Your task to perform on an android device: Search for seafood restaurants on Google Maps Image 0: 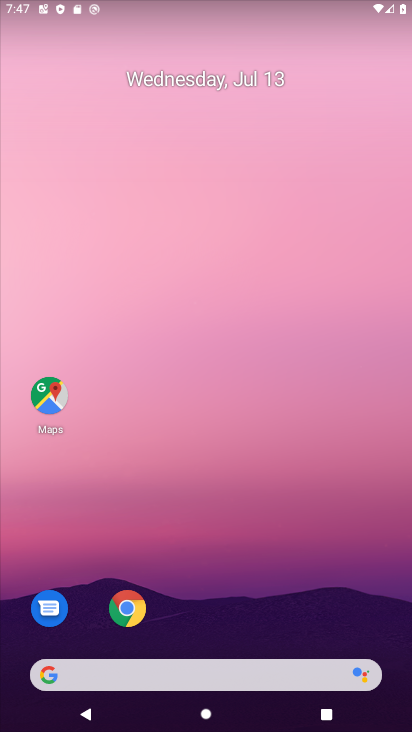
Step 0: click (62, 411)
Your task to perform on an android device: Search for seafood restaurants on Google Maps Image 1: 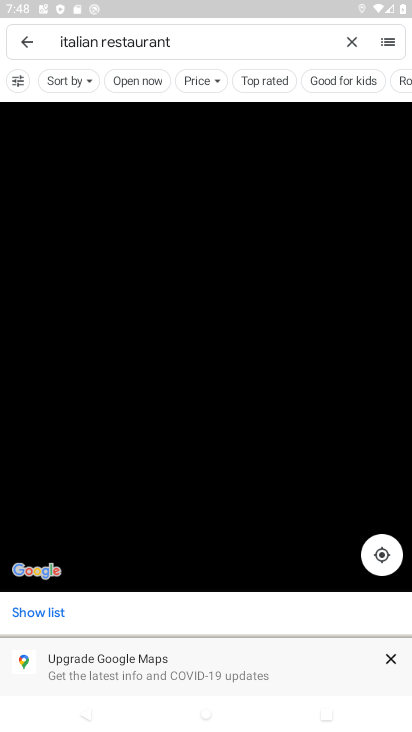
Step 1: click (346, 46)
Your task to perform on an android device: Search for seafood restaurants on Google Maps Image 2: 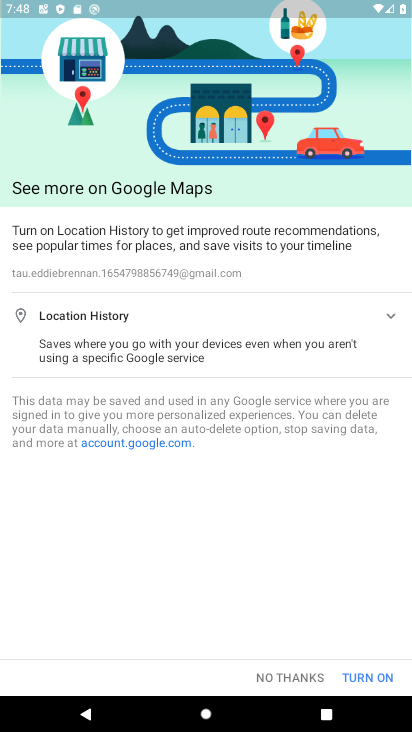
Step 2: click (362, 675)
Your task to perform on an android device: Search for seafood restaurants on Google Maps Image 3: 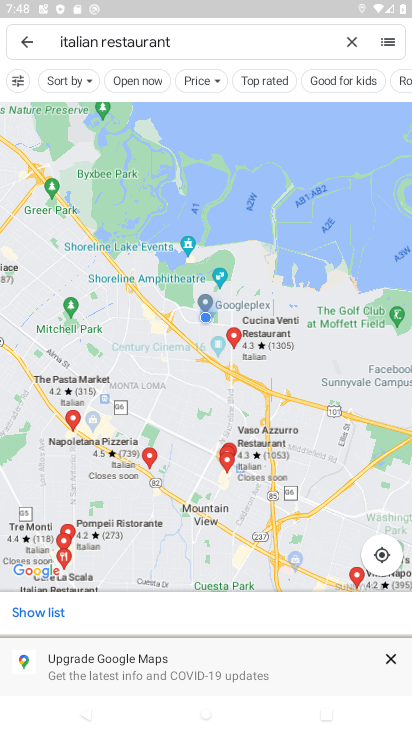
Step 3: click (369, 682)
Your task to perform on an android device: Search for seafood restaurants on Google Maps Image 4: 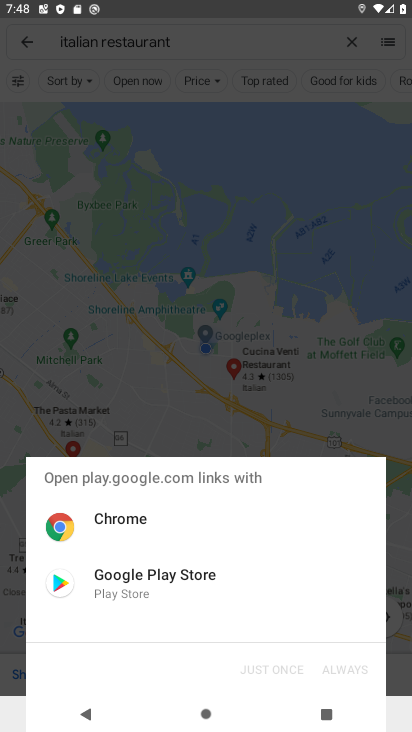
Step 4: click (144, 314)
Your task to perform on an android device: Search for seafood restaurants on Google Maps Image 5: 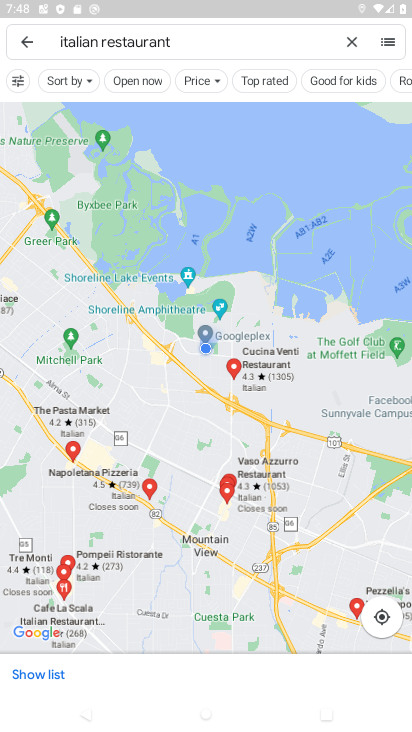
Step 5: click (351, 37)
Your task to perform on an android device: Search for seafood restaurants on Google Maps Image 6: 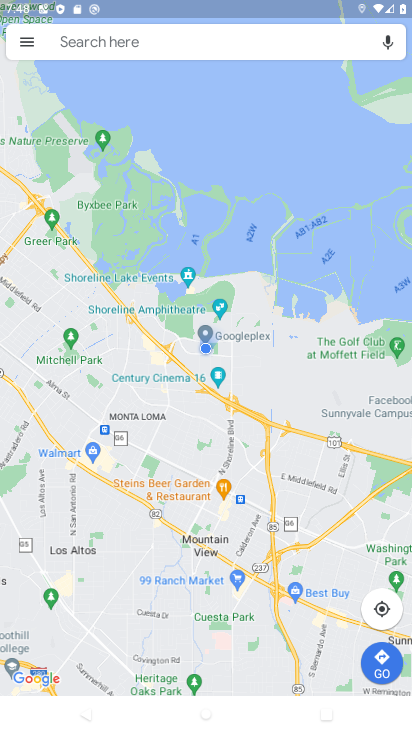
Step 6: click (253, 49)
Your task to perform on an android device: Search for seafood restaurants on Google Maps Image 7: 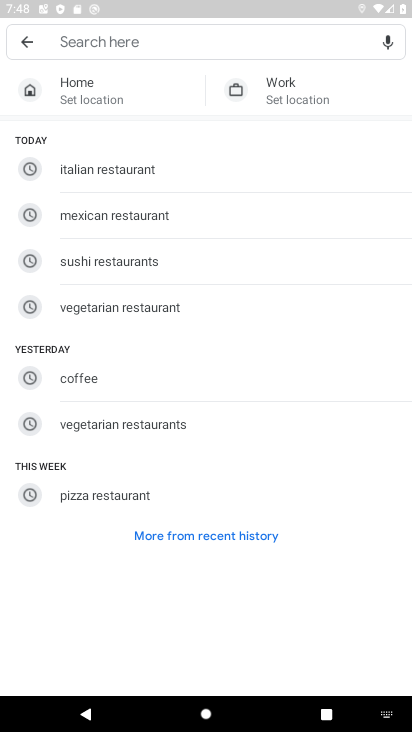
Step 7: type "seafood restaurants"
Your task to perform on an android device: Search for seafood restaurants on Google Maps Image 8: 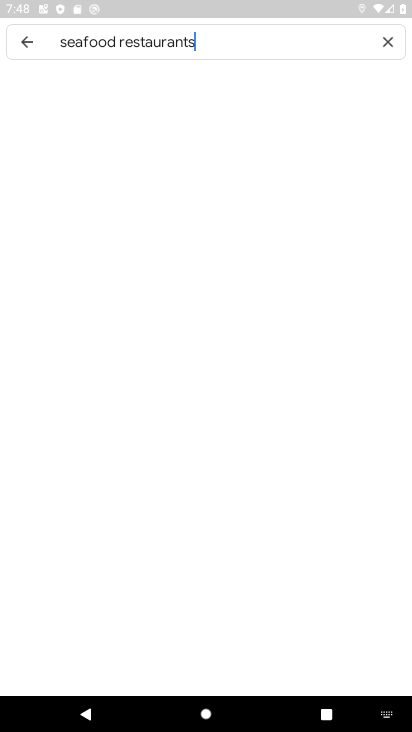
Step 8: type ""
Your task to perform on an android device: Search for seafood restaurants on Google Maps Image 9: 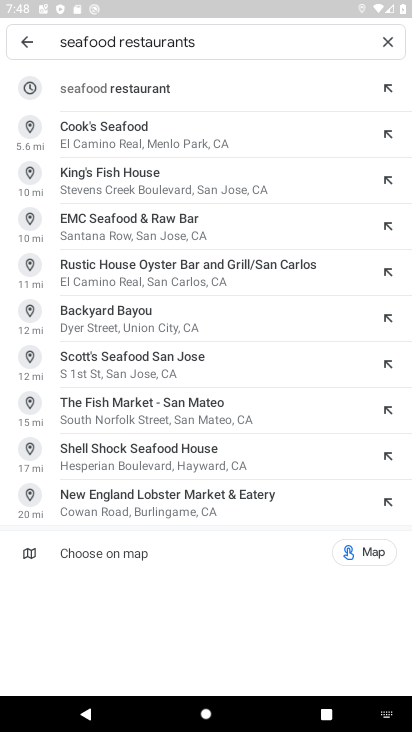
Step 9: click (249, 103)
Your task to perform on an android device: Search for seafood restaurants on Google Maps Image 10: 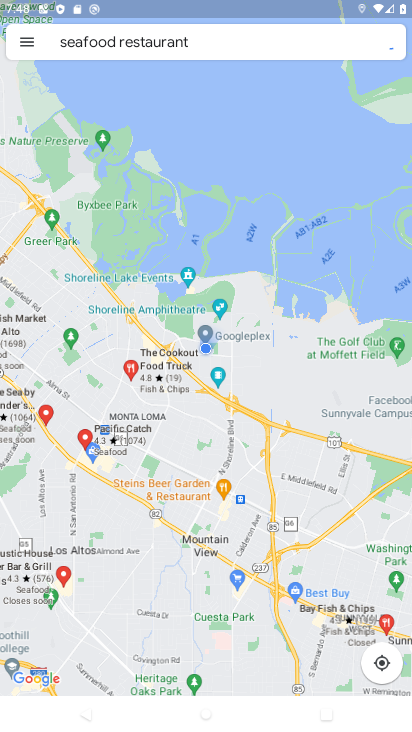
Step 10: task complete